Your task to perform on an android device: change timer sound Image 0: 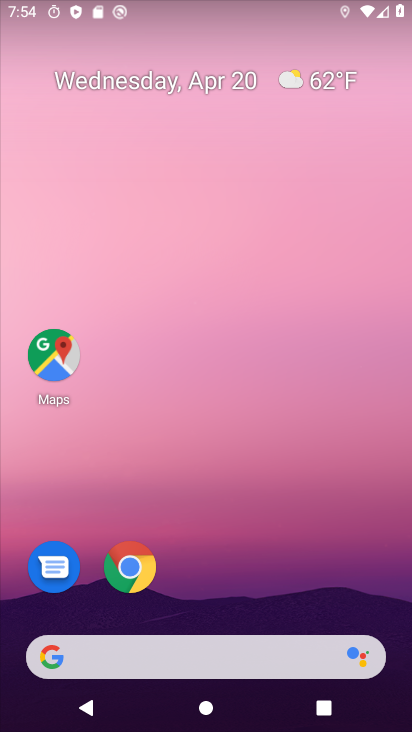
Step 0: drag from (370, 630) to (410, 1)
Your task to perform on an android device: change timer sound Image 1: 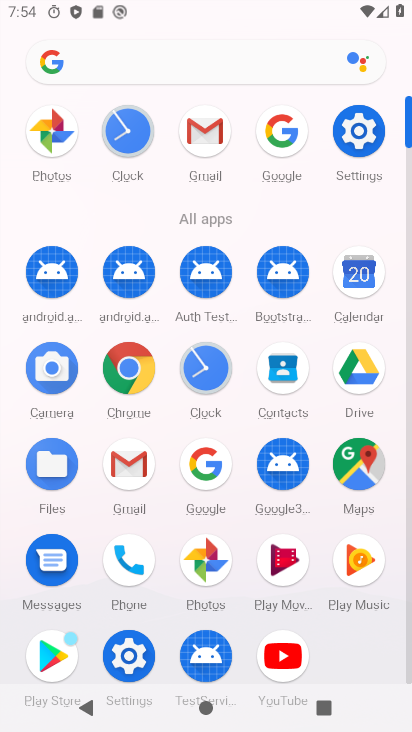
Step 1: click (119, 139)
Your task to perform on an android device: change timer sound Image 2: 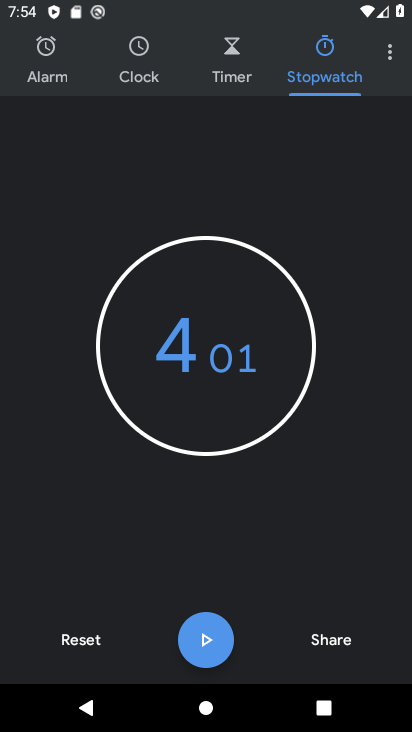
Step 2: click (392, 56)
Your task to perform on an android device: change timer sound Image 3: 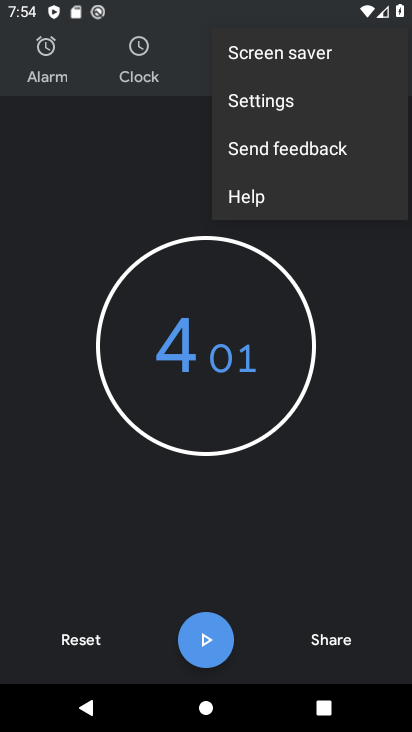
Step 3: click (288, 99)
Your task to perform on an android device: change timer sound Image 4: 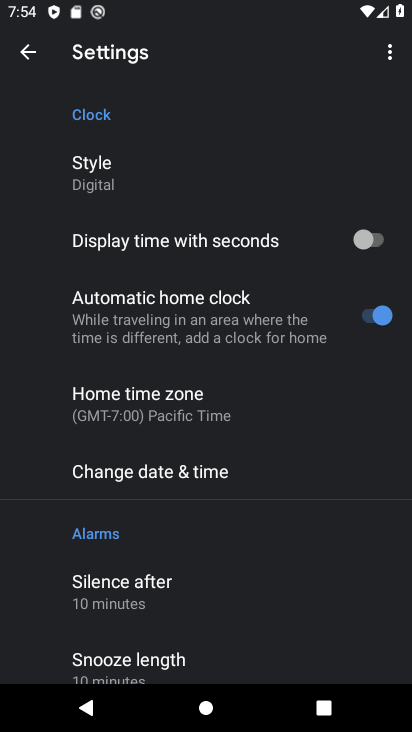
Step 4: drag from (277, 504) to (254, 124)
Your task to perform on an android device: change timer sound Image 5: 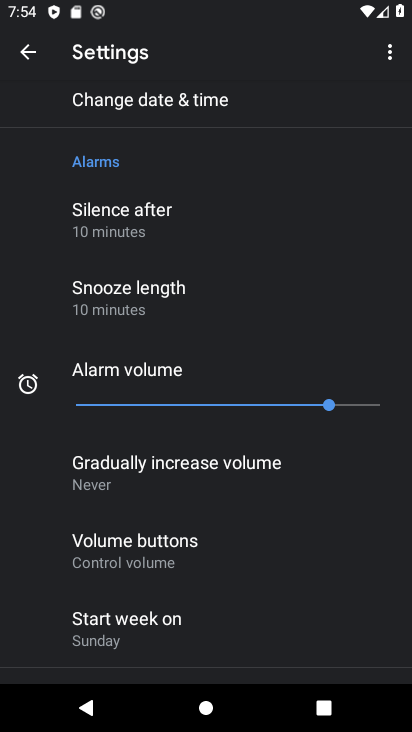
Step 5: drag from (302, 533) to (278, 214)
Your task to perform on an android device: change timer sound Image 6: 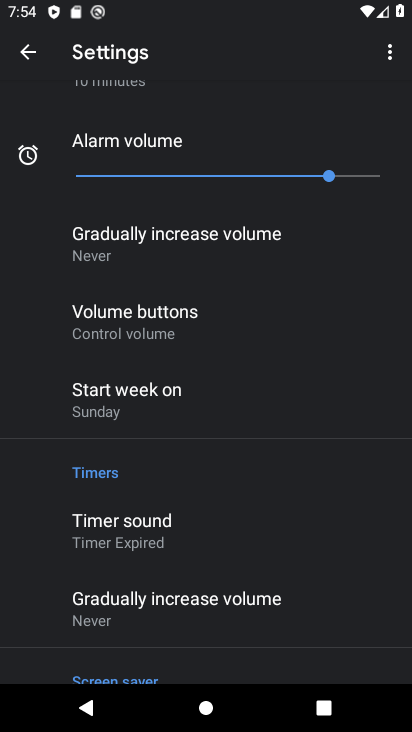
Step 6: drag from (274, 425) to (257, 211)
Your task to perform on an android device: change timer sound Image 7: 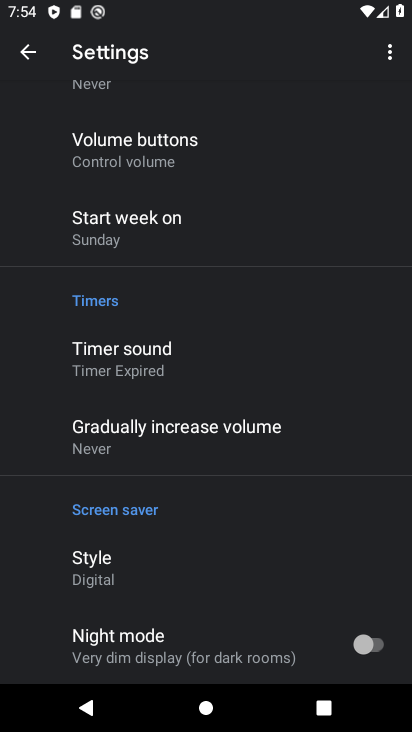
Step 7: click (127, 371)
Your task to perform on an android device: change timer sound Image 8: 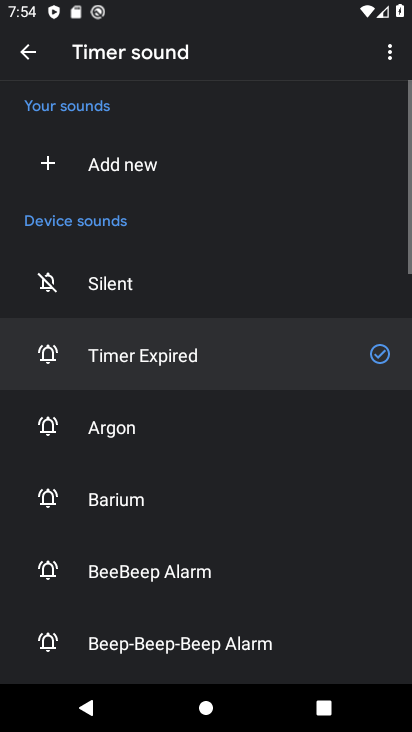
Step 8: click (113, 500)
Your task to perform on an android device: change timer sound Image 9: 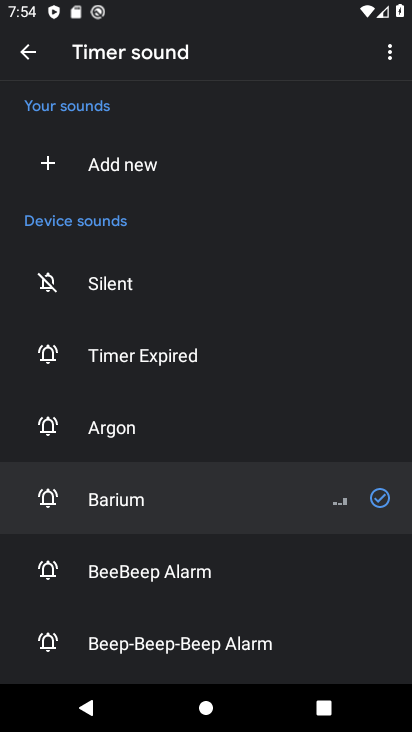
Step 9: task complete